Your task to perform on an android device: Open Yahoo.com Image 0: 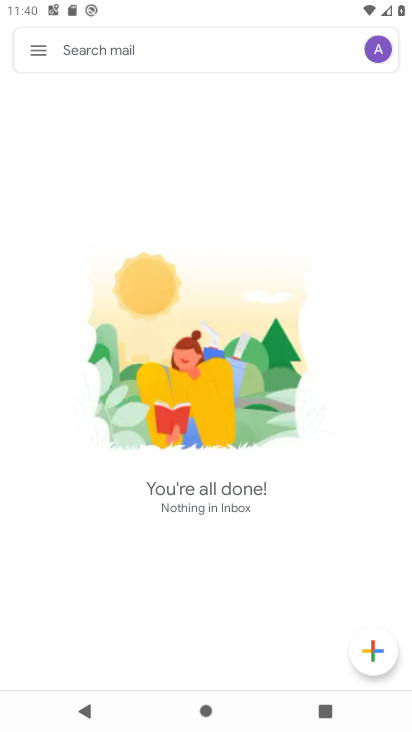
Step 0: press home button
Your task to perform on an android device: Open Yahoo.com Image 1: 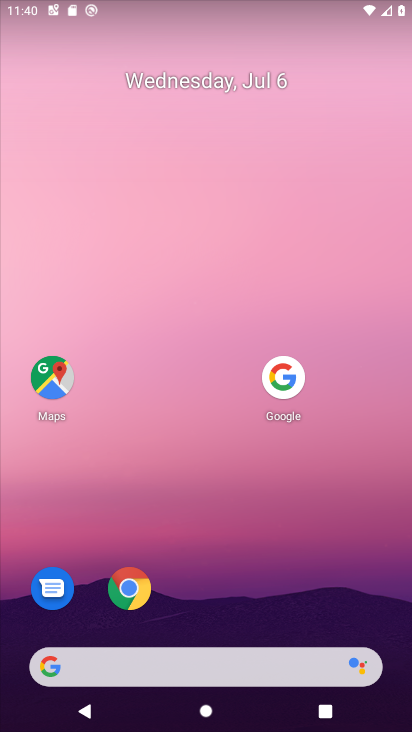
Step 1: click (129, 588)
Your task to perform on an android device: Open Yahoo.com Image 2: 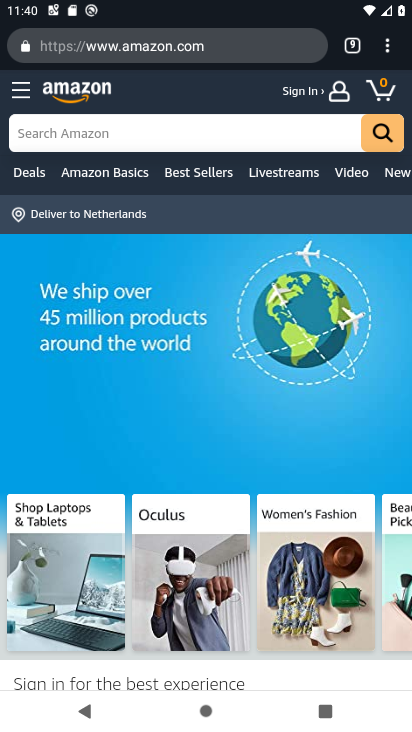
Step 2: click (388, 61)
Your task to perform on an android device: Open Yahoo.com Image 3: 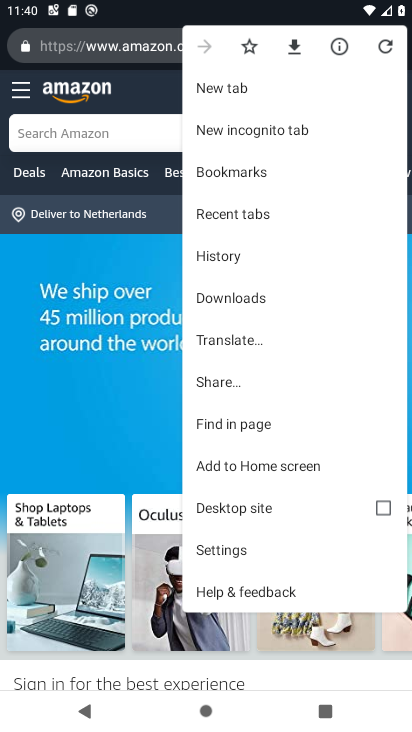
Step 3: click (311, 77)
Your task to perform on an android device: Open Yahoo.com Image 4: 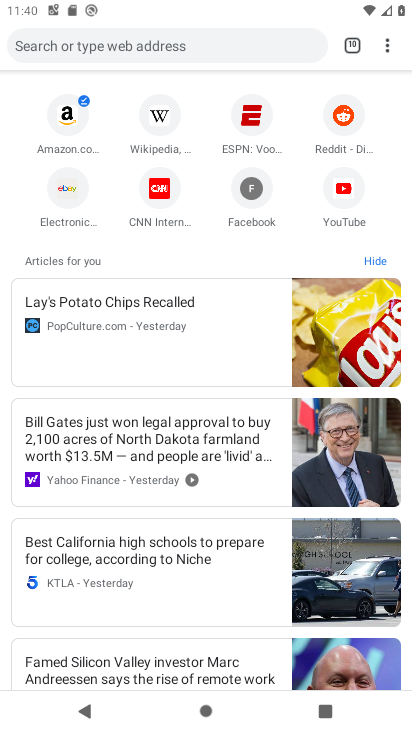
Step 4: click (107, 49)
Your task to perform on an android device: Open Yahoo.com Image 5: 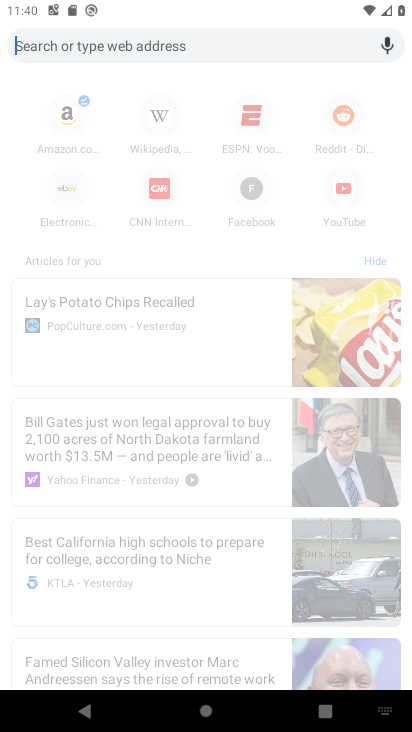
Step 5: type "yahoo.com"
Your task to perform on an android device: Open Yahoo.com Image 6: 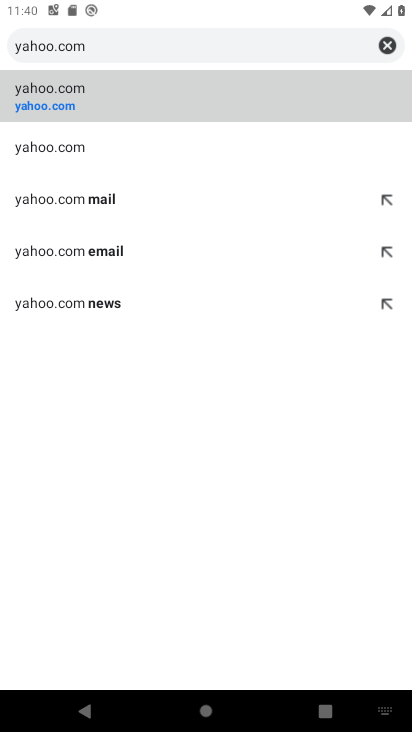
Step 6: click (99, 102)
Your task to perform on an android device: Open Yahoo.com Image 7: 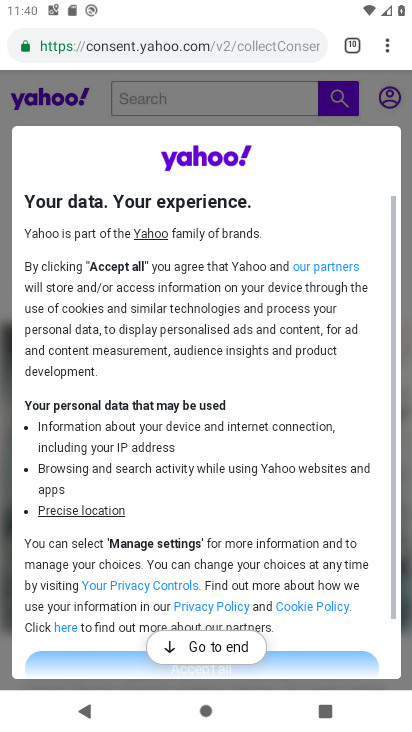
Step 7: drag from (176, 551) to (327, 132)
Your task to perform on an android device: Open Yahoo.com Image 8: 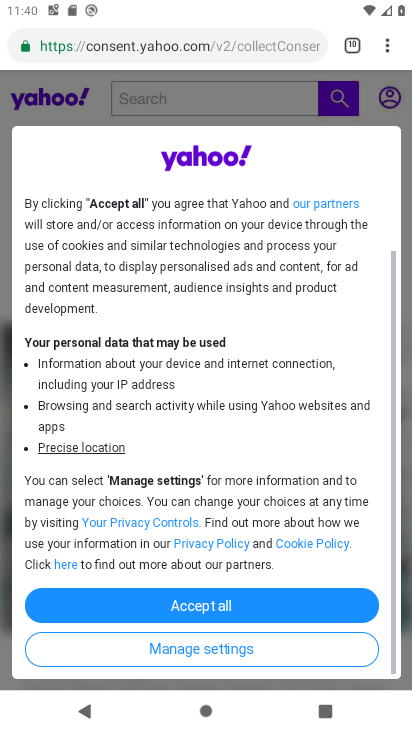
Step 8: click (196, 613)
Your task to perform on an android device: Open Yahoo.com Image 9: 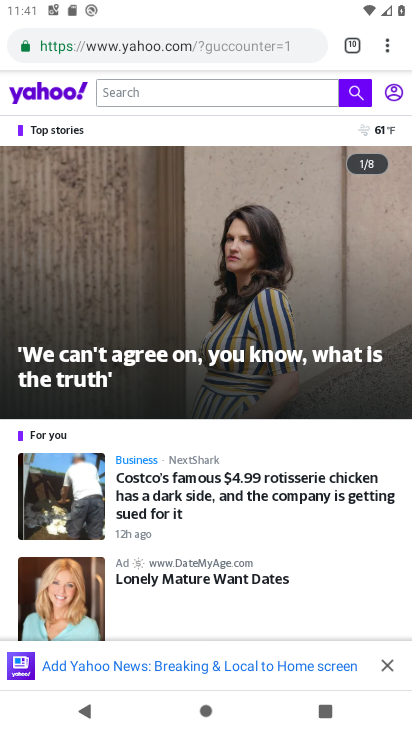
Step 9: task complete